Your task to perform on an android device: Open the calendar app, open the side menu, and click the "Day" option Image 0: 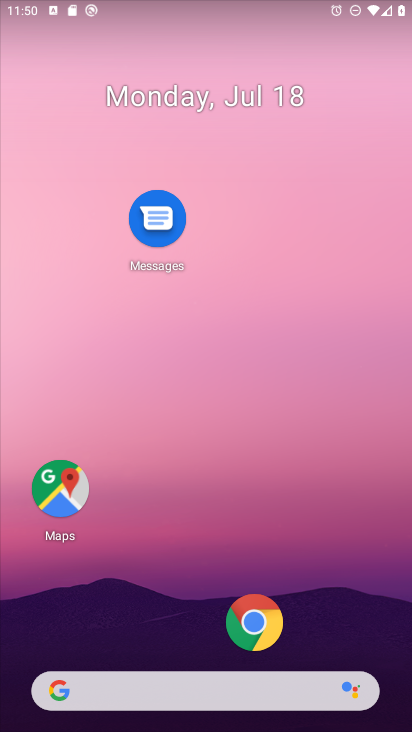
Step 0: drag from (214, 645) to (291, 163)
Your task to perform on an android device: Open the calendar app, open the side menu, and click the "Day" option Image 1: 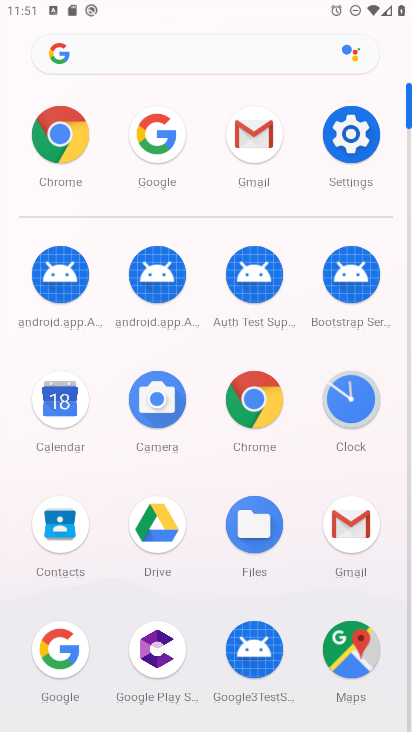
Step 1: click (50, 405)
Your task to perform on an android device: Open the calendar app, open the side menu, and click the "Day" option Image 2: 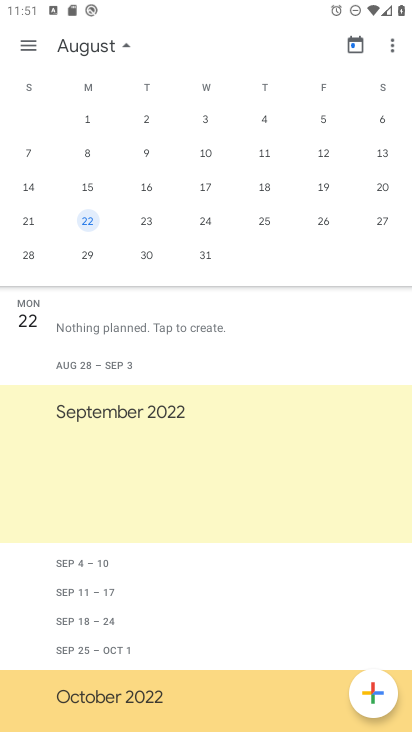
Step 2: click (27, 45)
Your task to perform on an android device: Open the calendar app, open the side menu, and click the "Day" option Image 3: 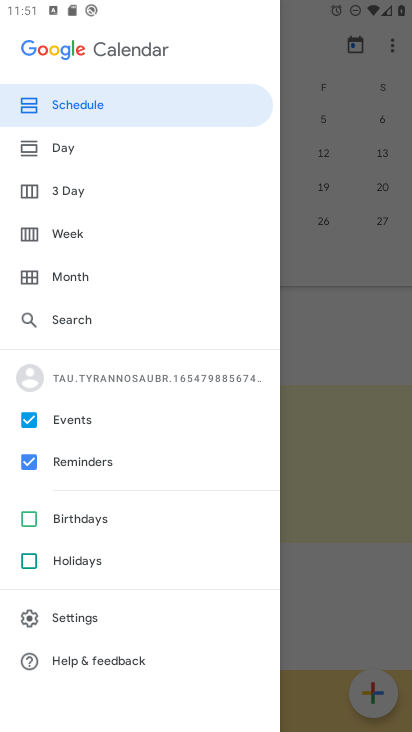
Step 3: click (68, 160)
Your task to perform on an android device: Open the calendar app, open the side menu, and click the "Day" option Image 4: 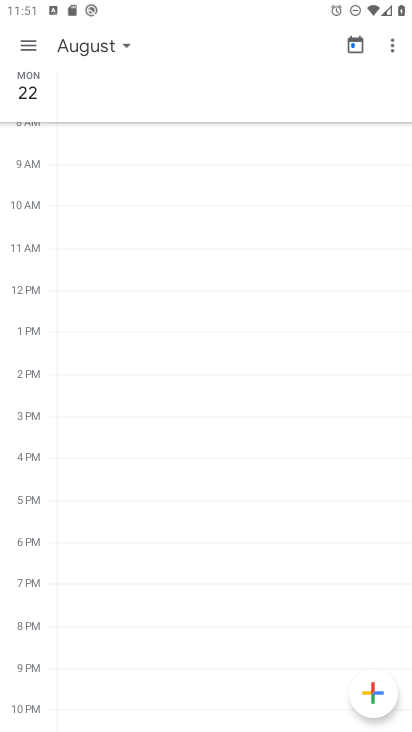
Step 4: task complete